Your task to perform on an android device: check out phone information Image 0: 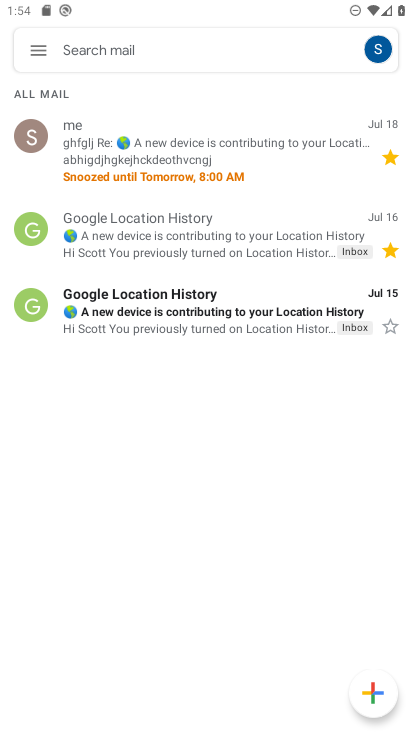
Step 0: press home button
Your task to perform on an android device: check out phone information Image 1: 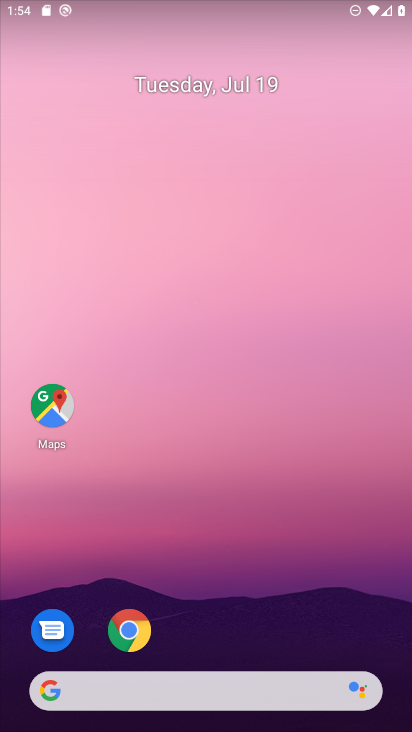
Step 1: drag from (177, 685) to (284, 229)
Your task to perform on an android device: check out phone information Image 2: 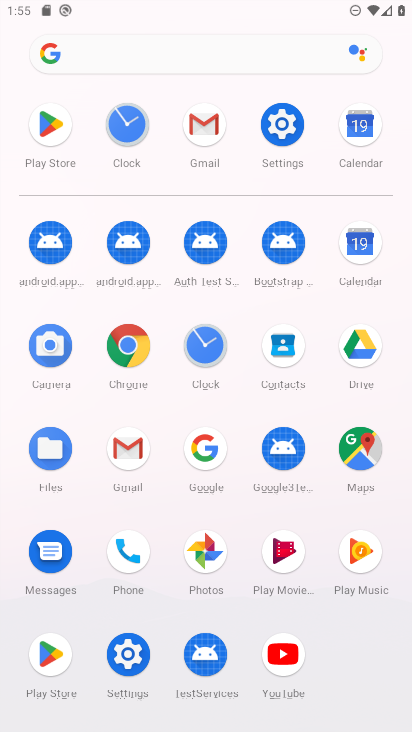
Step 2: click (281, 118)
Your task to perform on an android device: check out phone information Image 3: 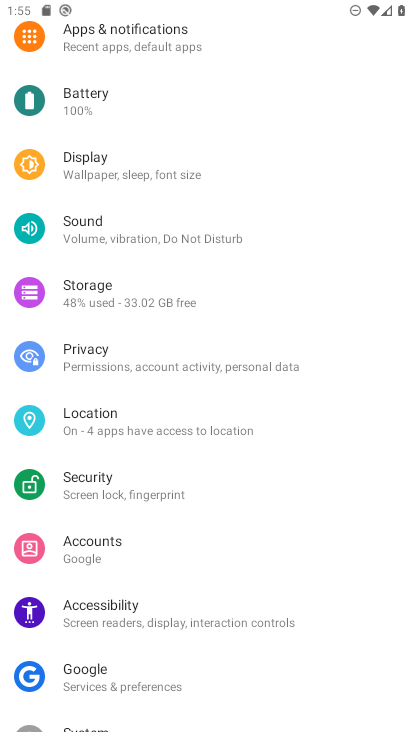
Step 3: drag from (283, 655) to (311, 56)
Your task to perform on an android device: check out phone information Image 4: 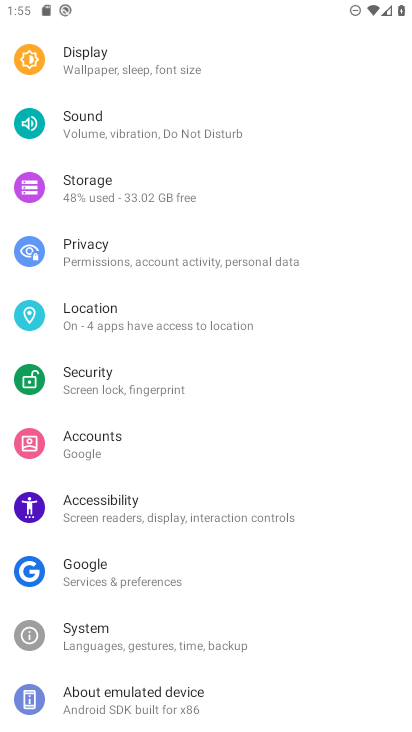
Step 4: click (131, 692)
Your task to perform on an android device: check out phone information Image 5: 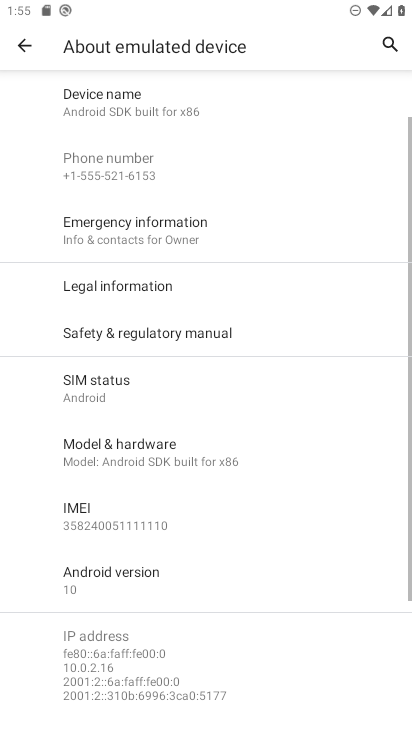
Step 5: task complete